Your task to perform on an android device: open app "Duolingo: language lessons" (install if not already installed) Image 0: 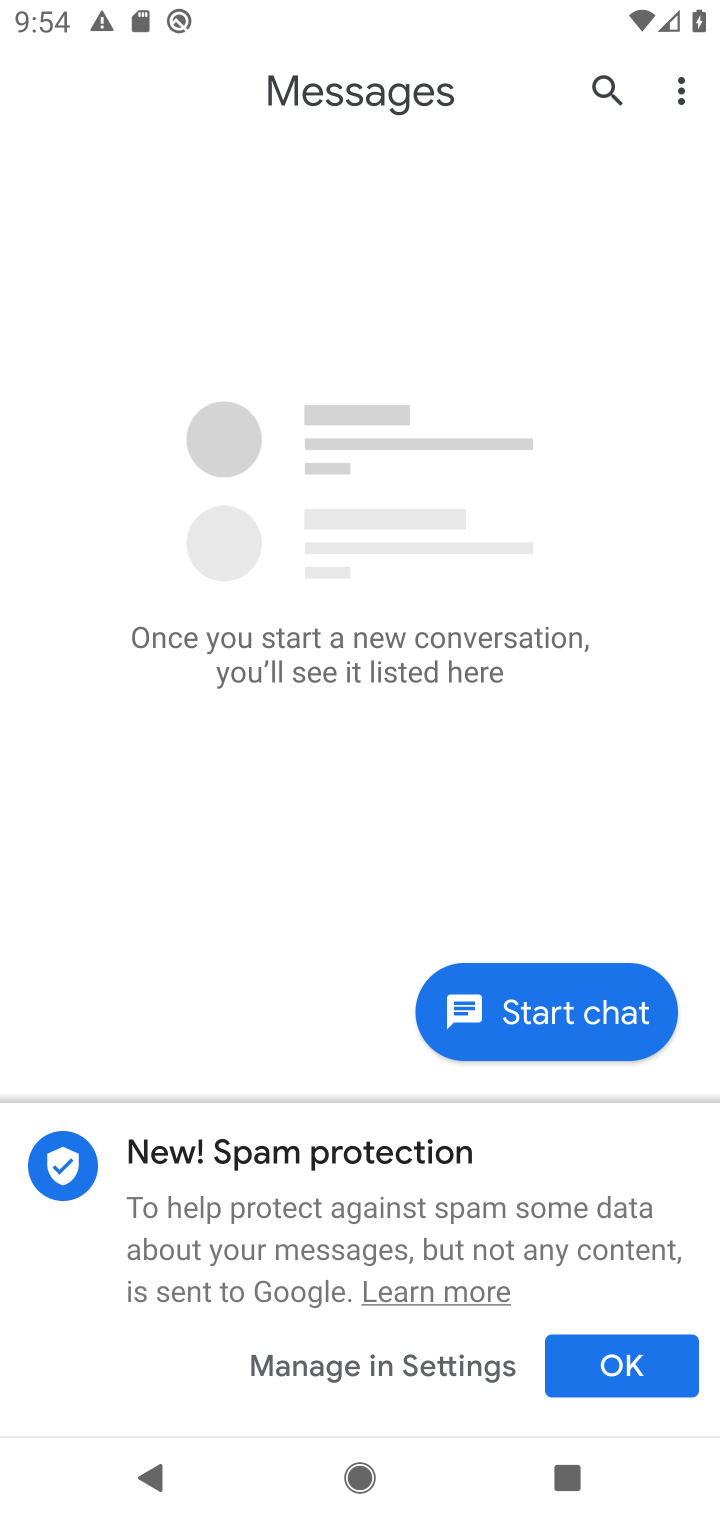
Step 0: press home button
Your task to perform on an android device: open app "Duolingo: language lessons" (install if not already installed) Image 1: 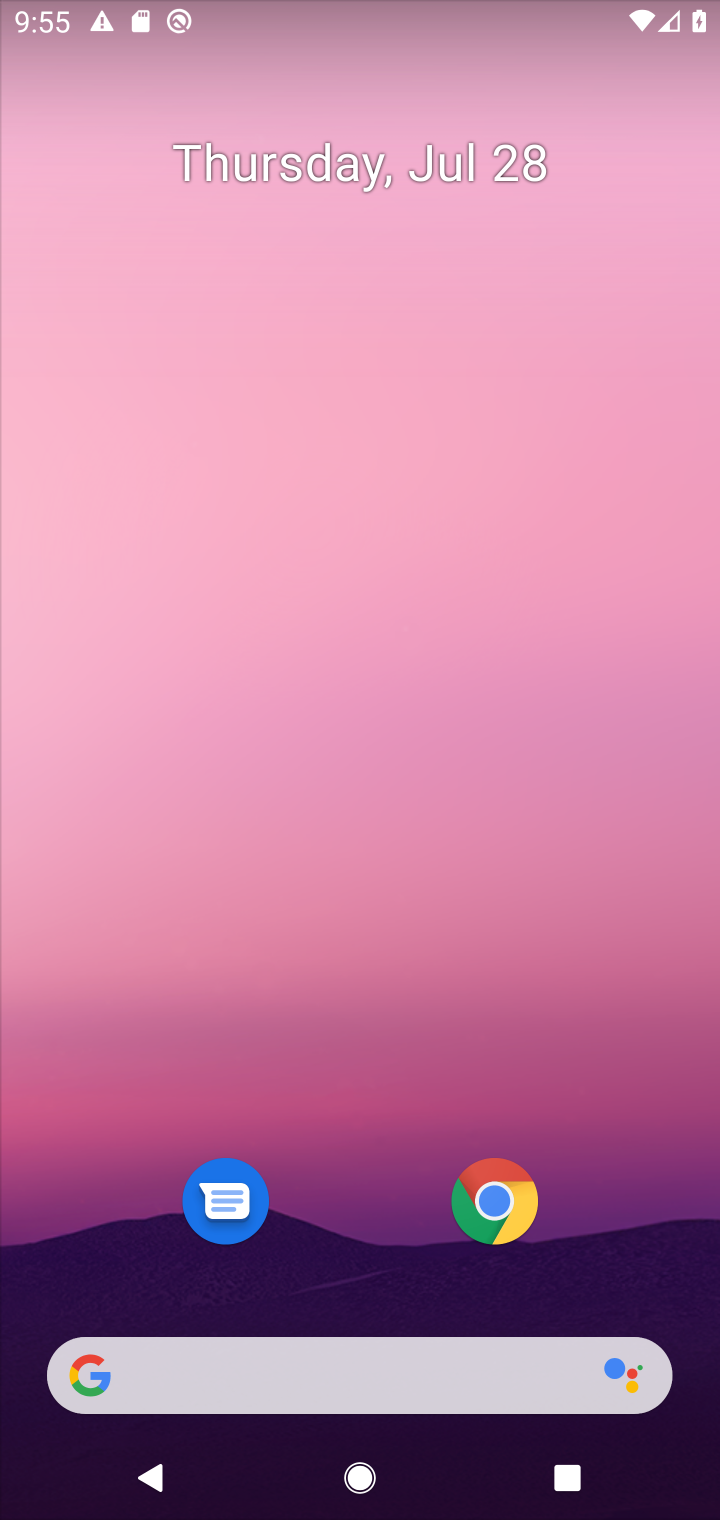
Step 1: drag from (280, 1275) to (298, 27)
Your task to perform on an android device: open app "Duolingo: language lessons" (install if not already installed) Image 2: 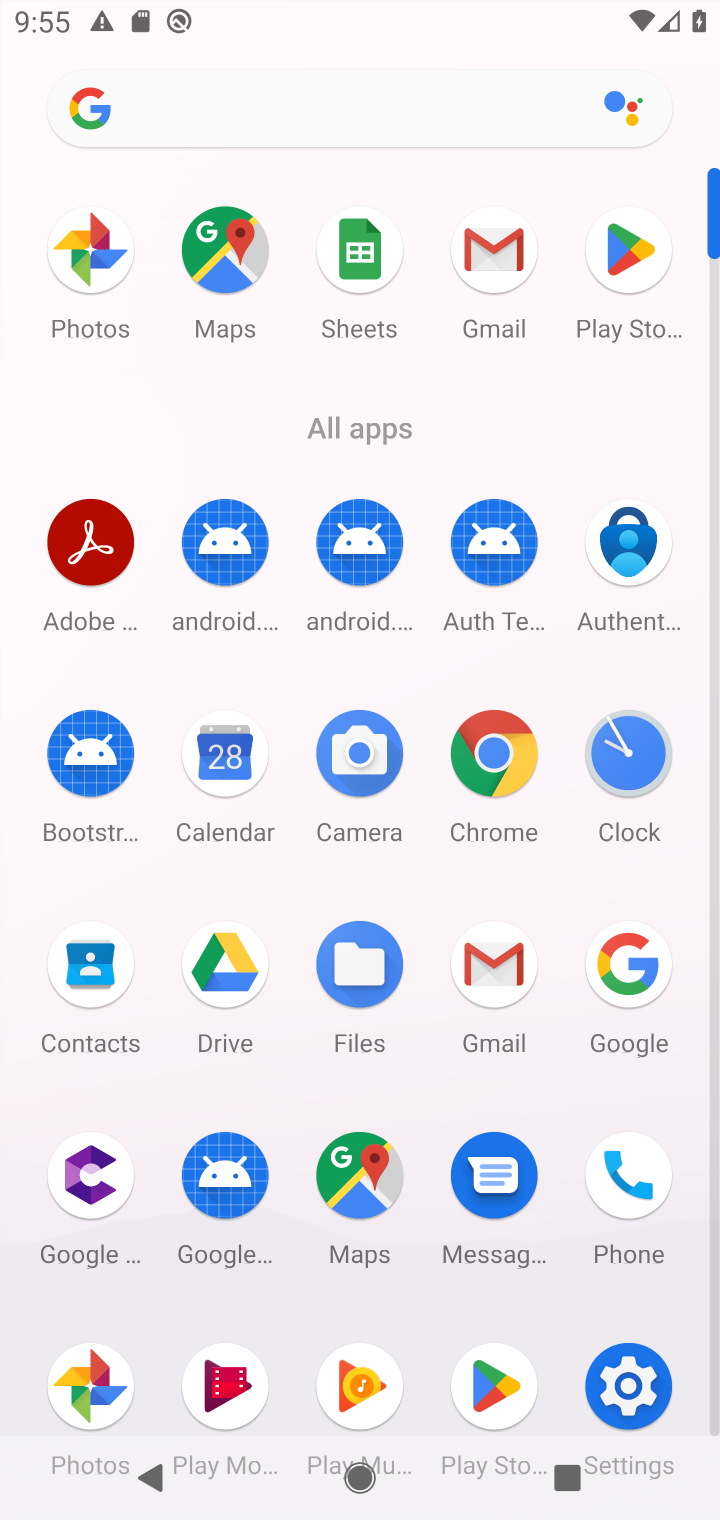
Step 2: click (493, 1383)
Your task to perform on an android device: open app "Duolingo: language lessons" (install if not already installed) Image 3: 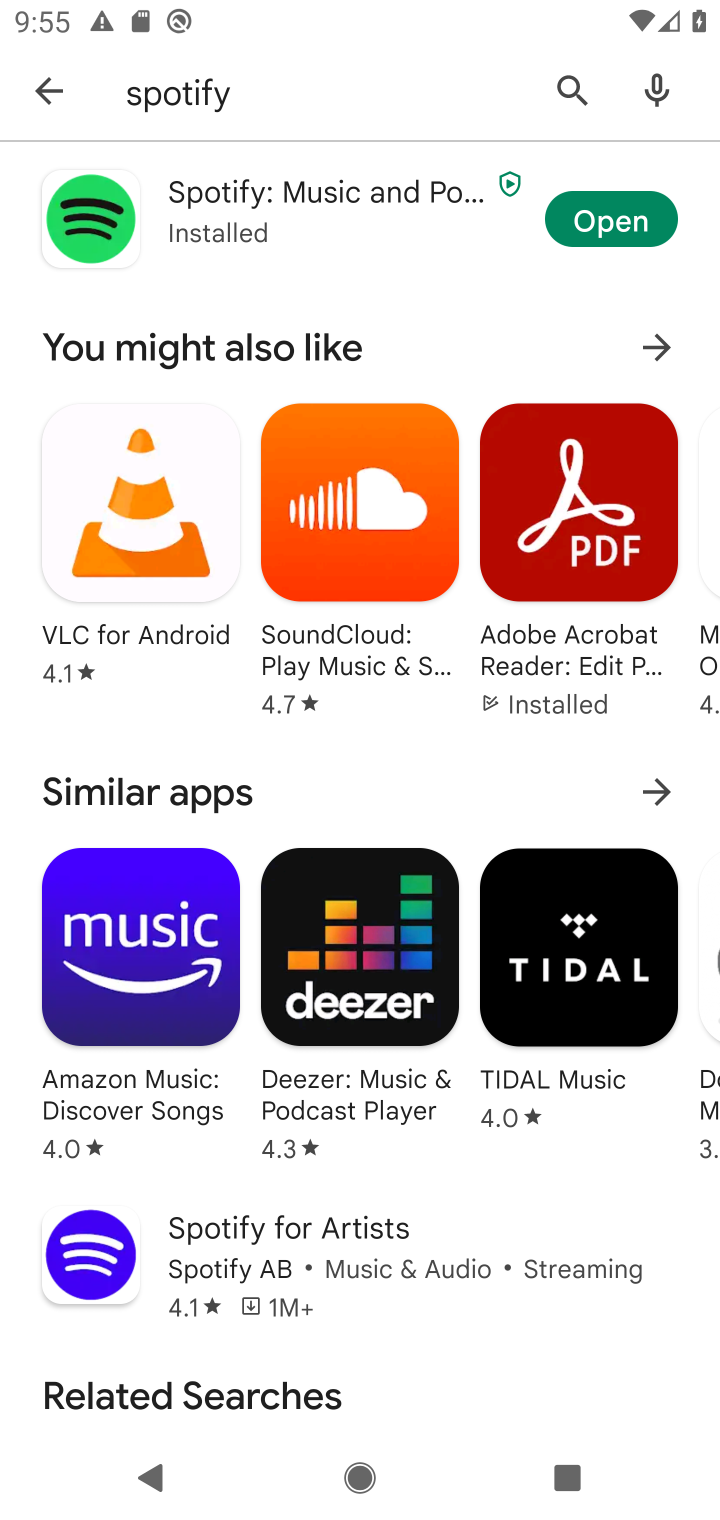
Step 3: click (255, 97)
Your task to perform on an android device: open app "Duolingo: language lessons" (install if not already installed) Image 4: 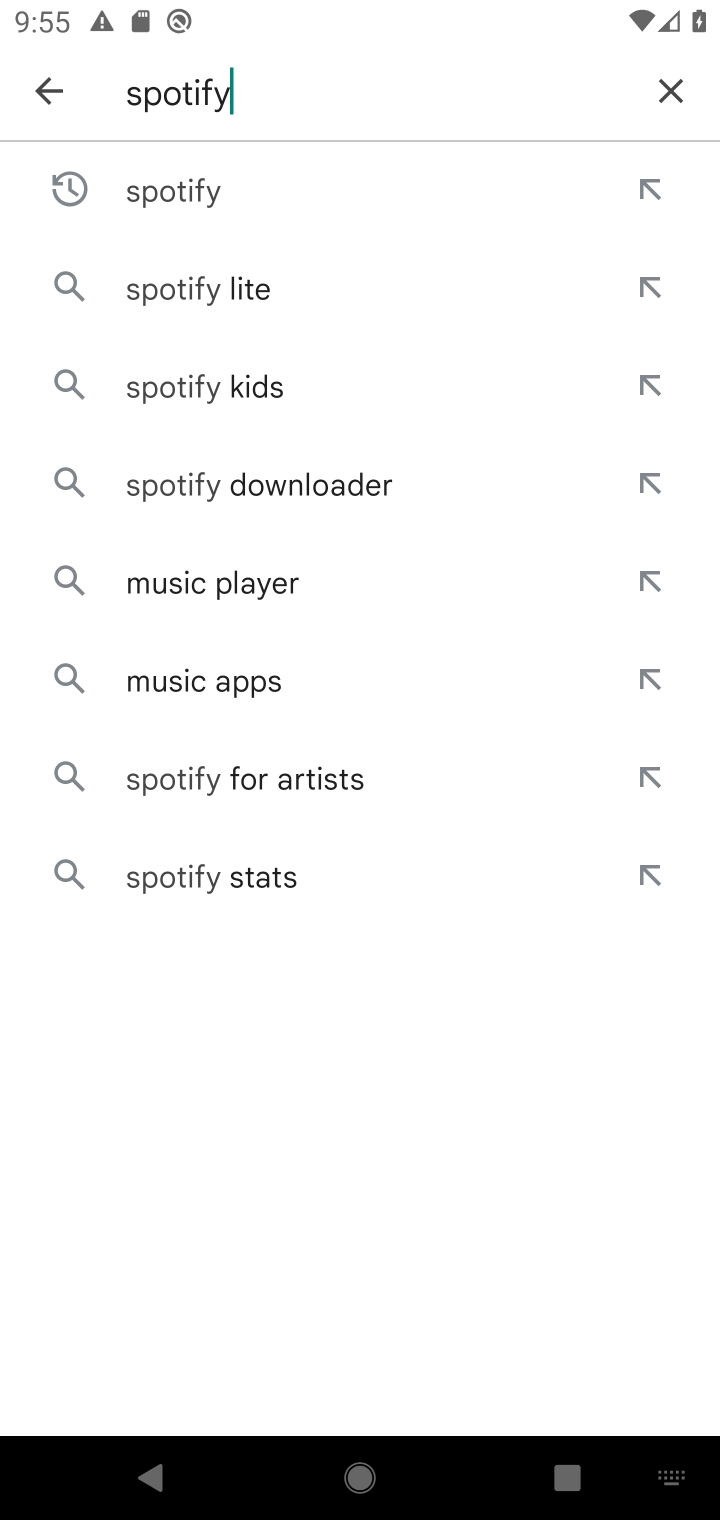
Step 4: click (664, 80)
Your task to perform on an android device: open app "Duolingo: language lessons" (install if not already installed) Image 5: 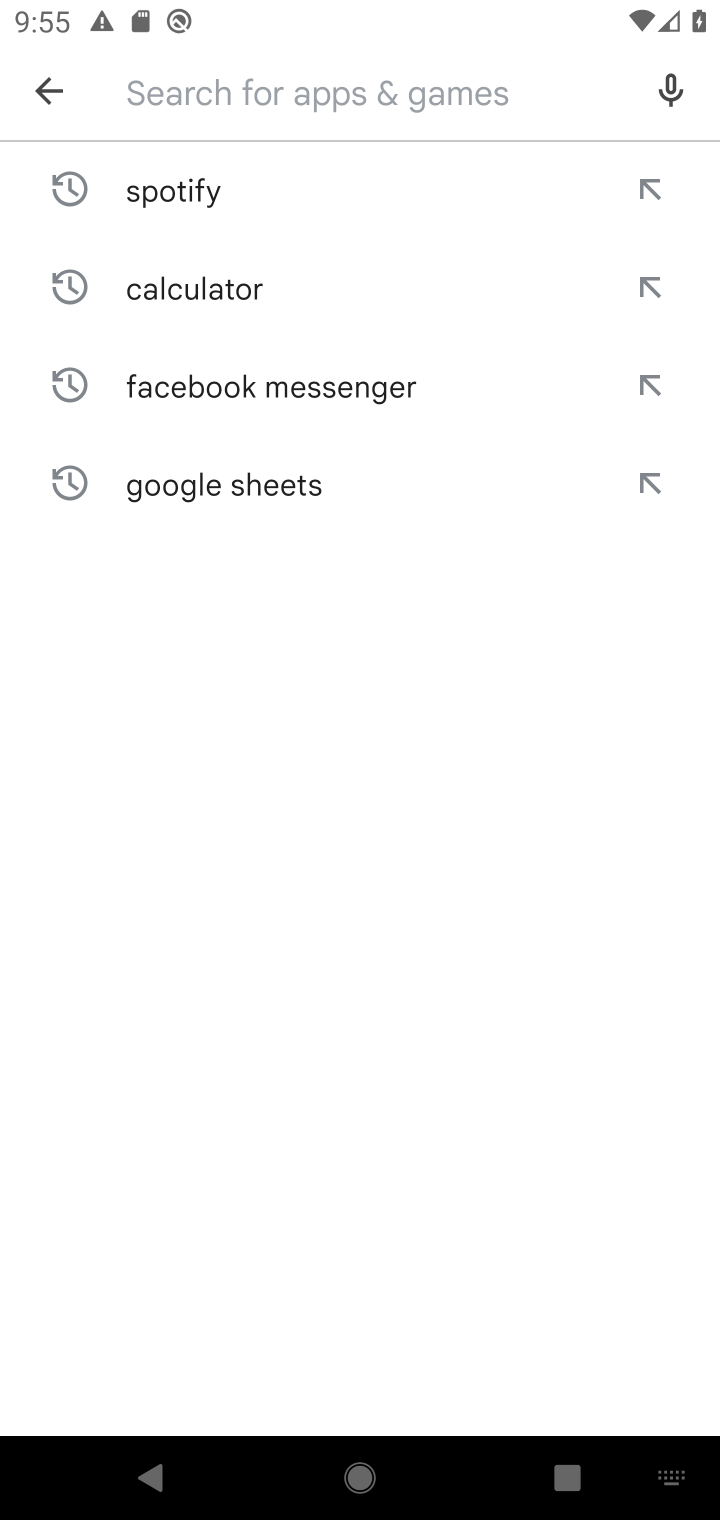
Step 5: type "Duolingo"
Your task to perform on an android device: open app "Duolingo: language lessons" (install if not already installed) Image 6: 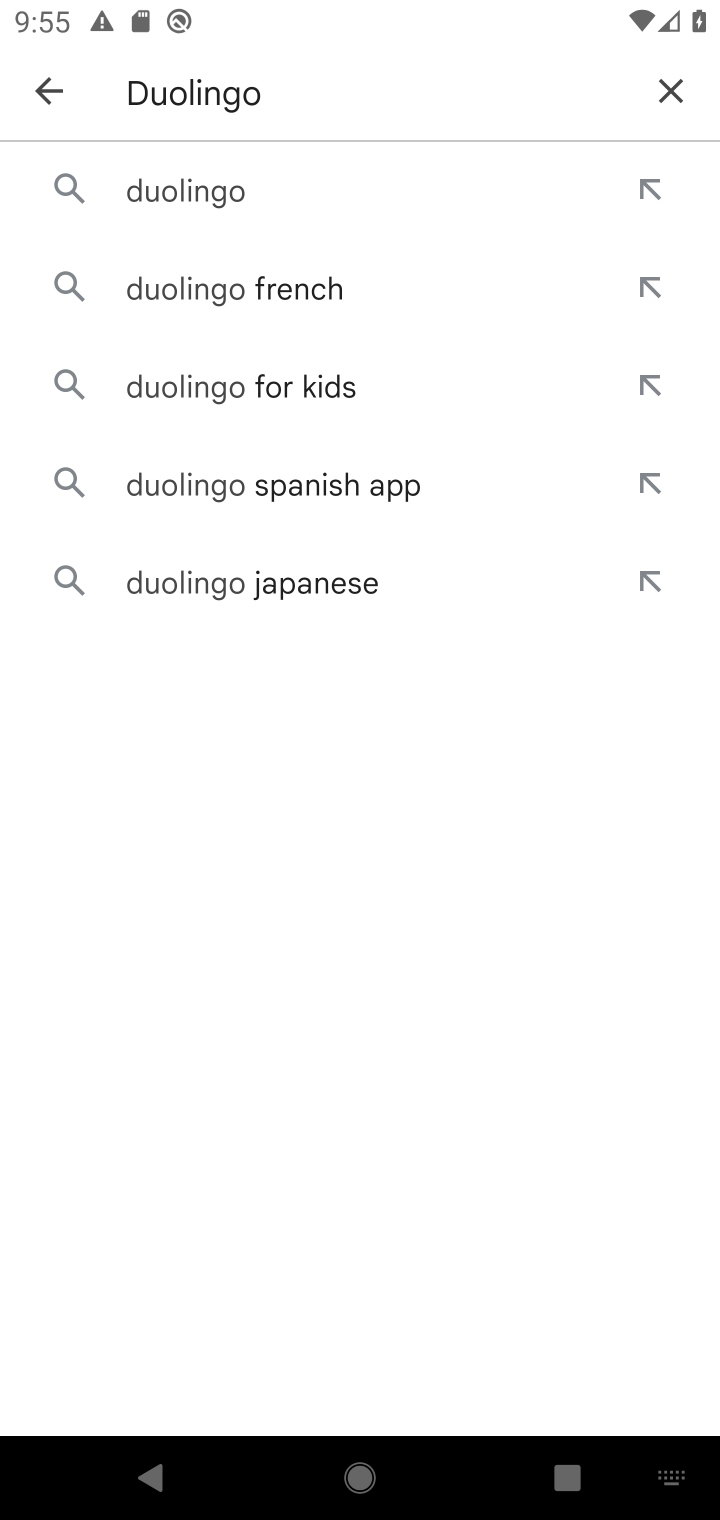
Step 6: click (243, 210)
Your task to perform on an android device: open app "Duolingo: language lessons" (install if not already installed) Image 7: 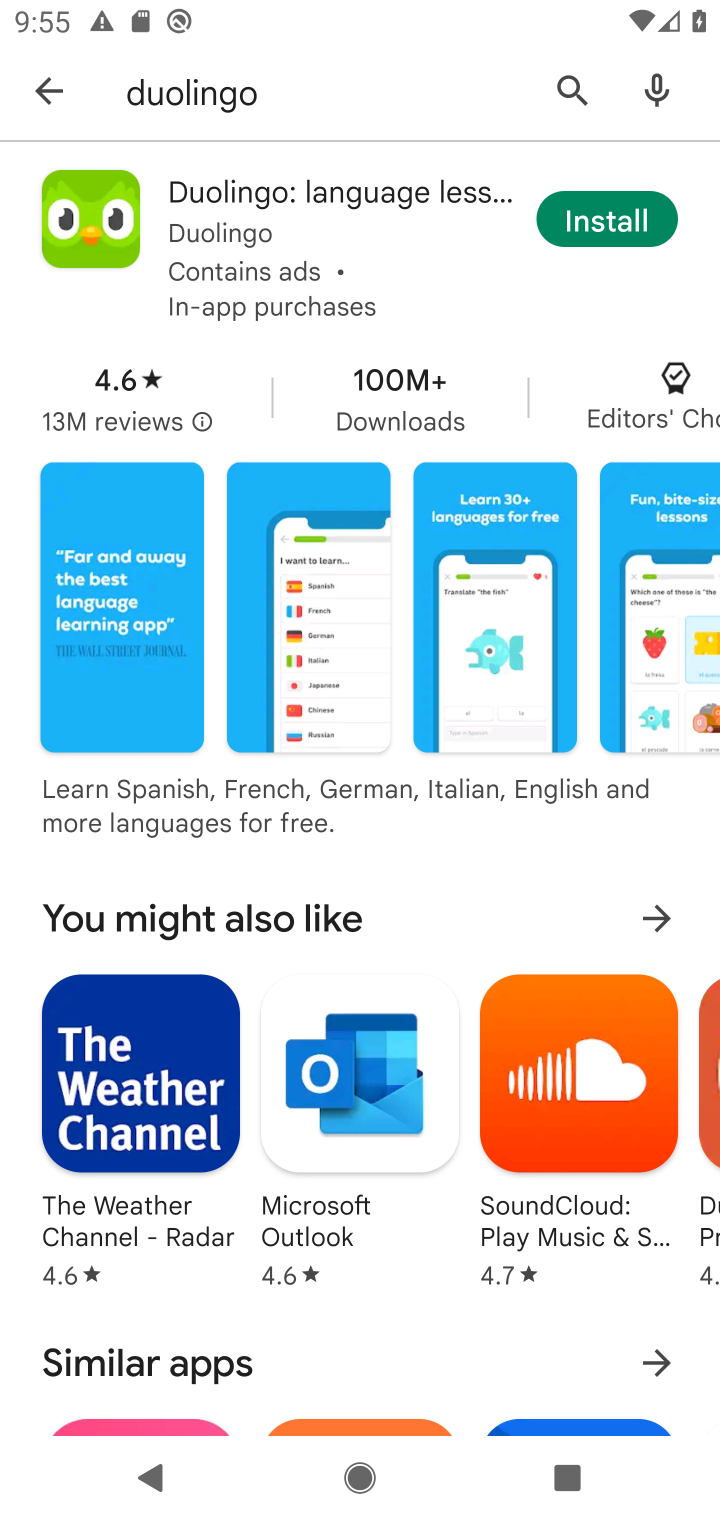
Step 7: click (591, 217)
Your task to perform on an android device: open app "Duolingo: language lessons" (install if not already installed) Image 8: 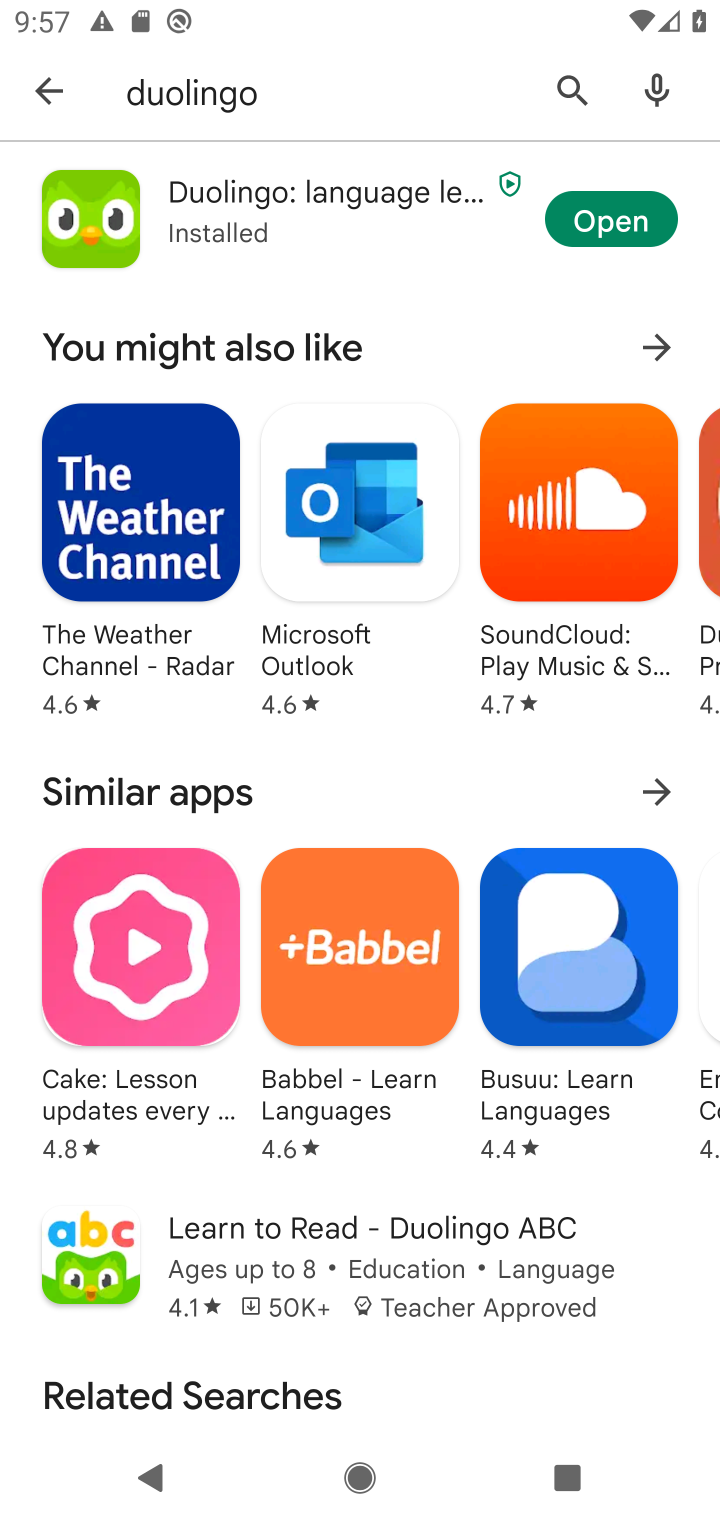
Step 8: click (624, 211)
Your task to perform on an android device: open app "Duolingo: language lessons" (install if not already installed) Image 9: 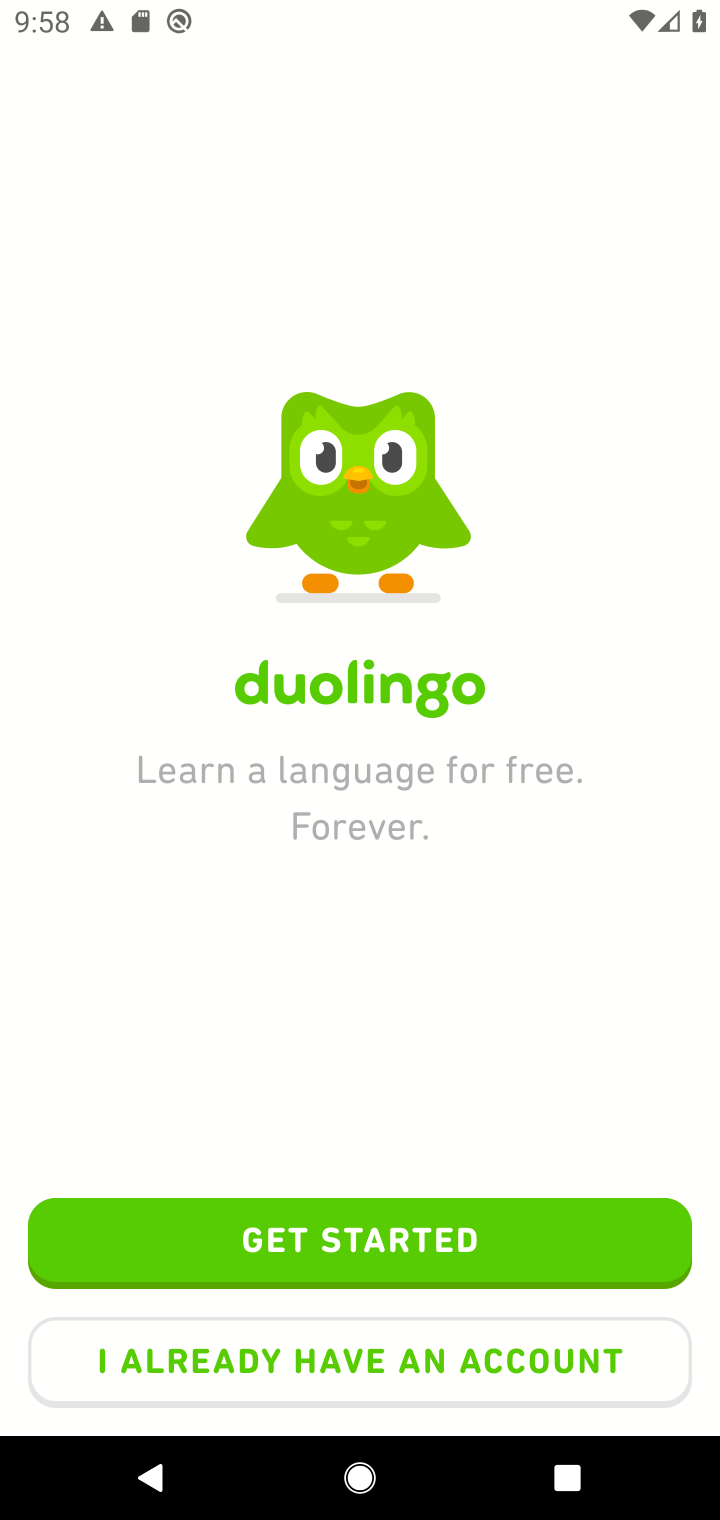
Step 9: click (452, 1248)
Your task to perform on an android device: open app "Duolingo: language lessons" (install if not already installed) Image 10: 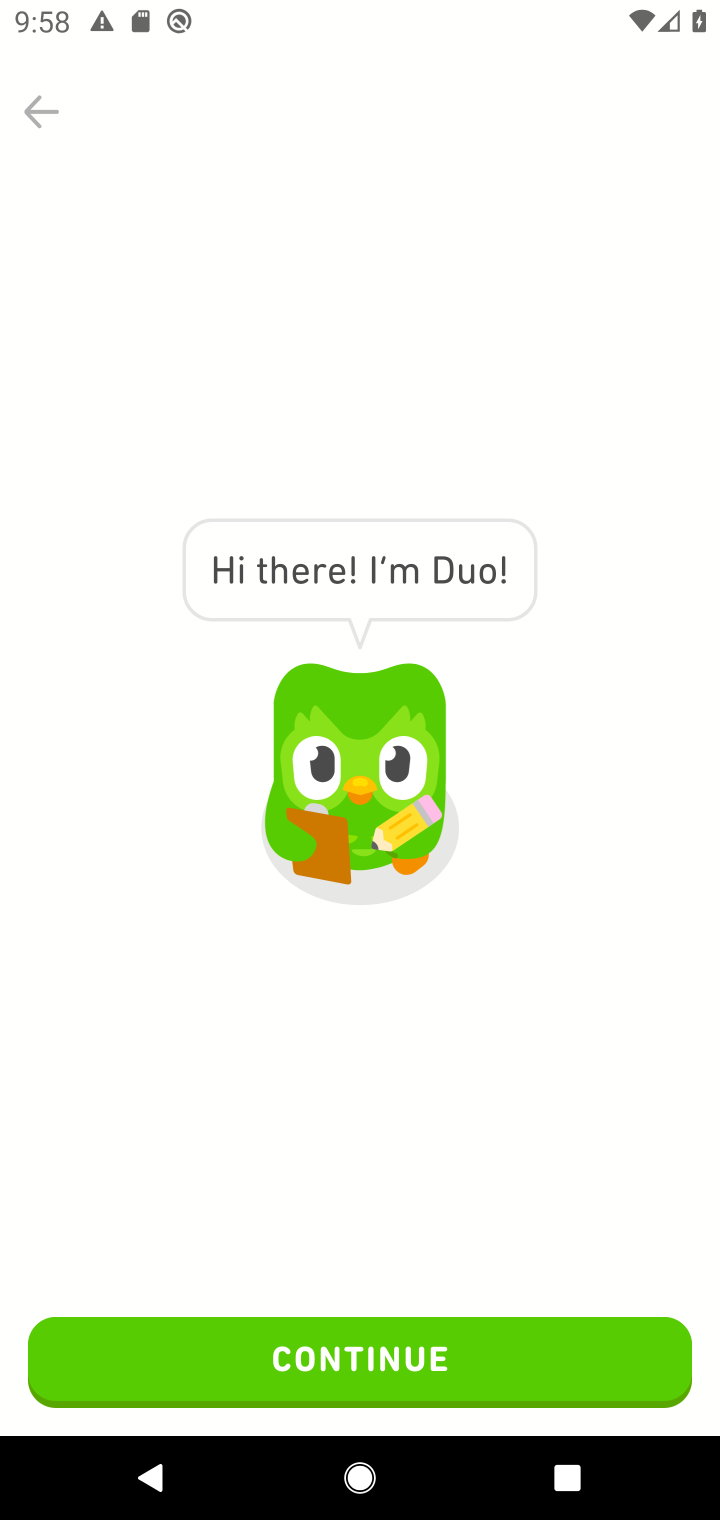
Step 10: click (453, 1400)
Your task to perform on an android device: open app "Duolingo: language lessons" (install if not already installed) Image 11: 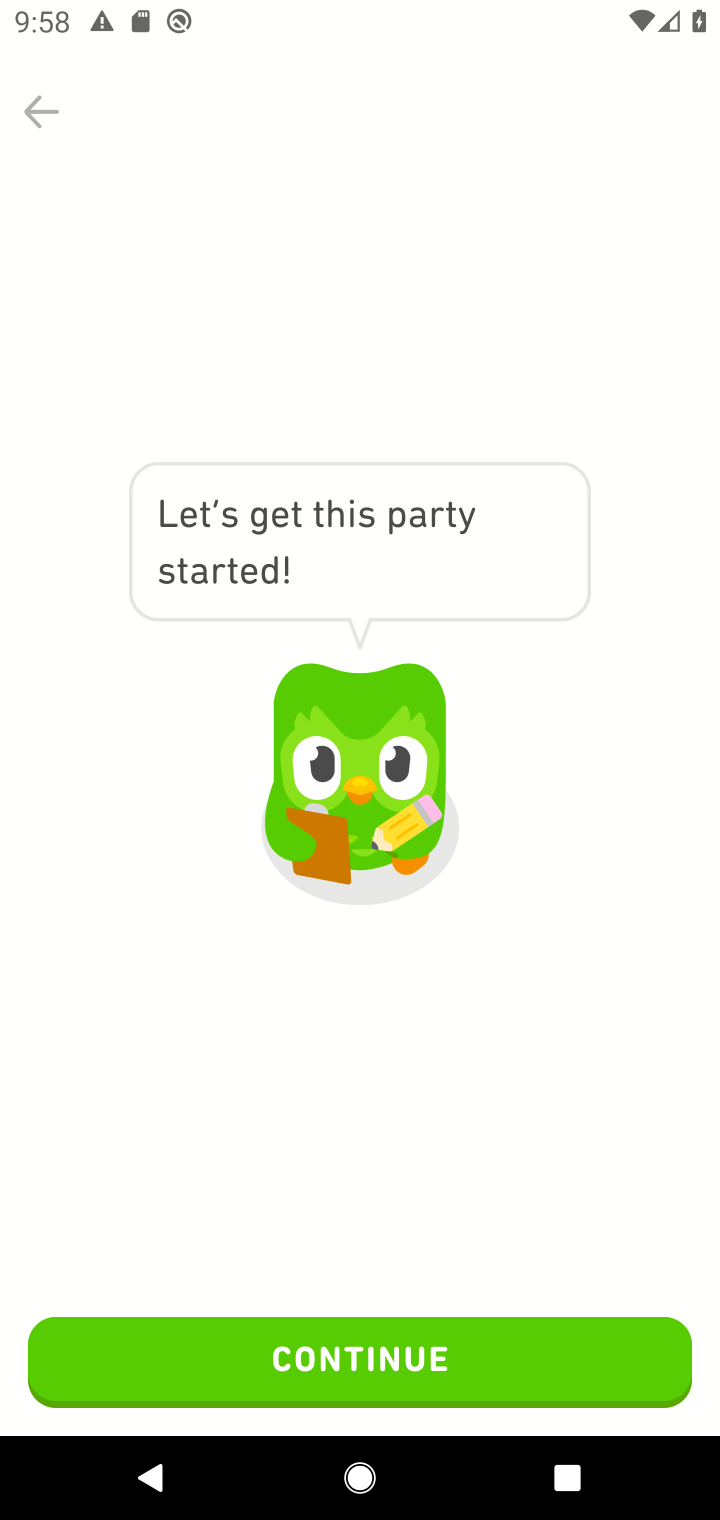
Step 11: click (452, 1361)
Your task to perform on an android device: open app "Duolingo: language lessons" (install if not already installed) Image 12: 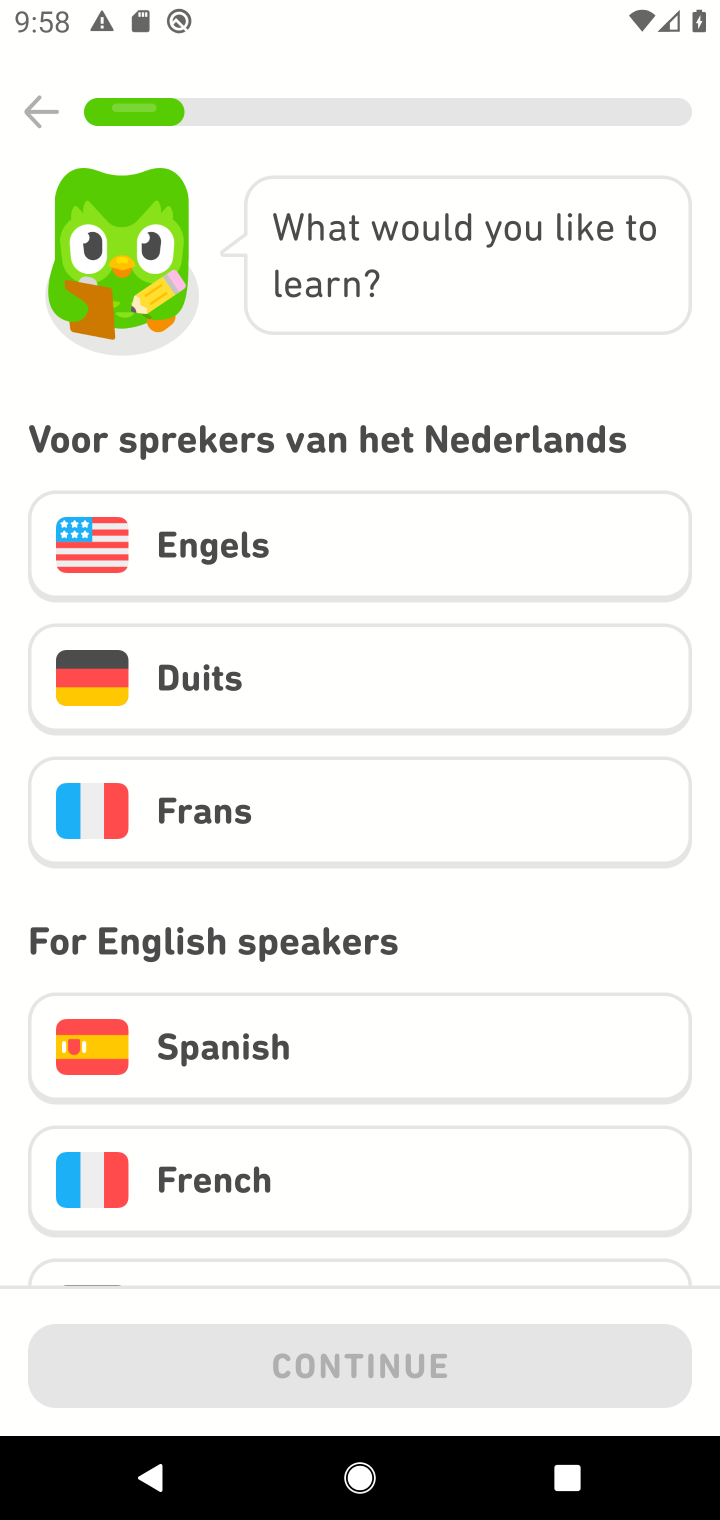
Step 12: task complete